Your task to perform on an android device: toggle sleep mode Image 0: 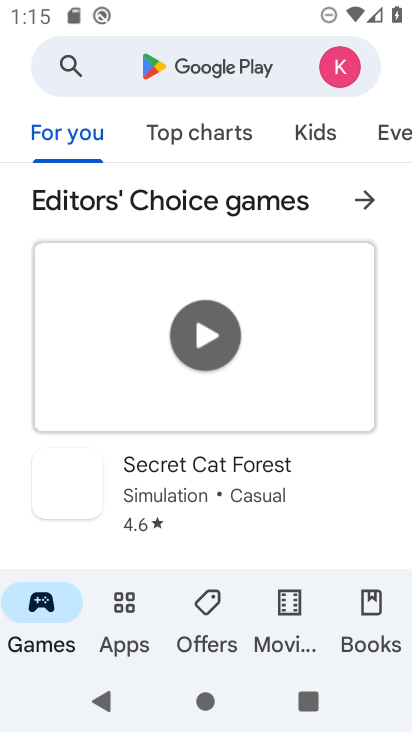
Step 0: press home button
Your task to perform on an android device: toggle sleep mode Image 1: 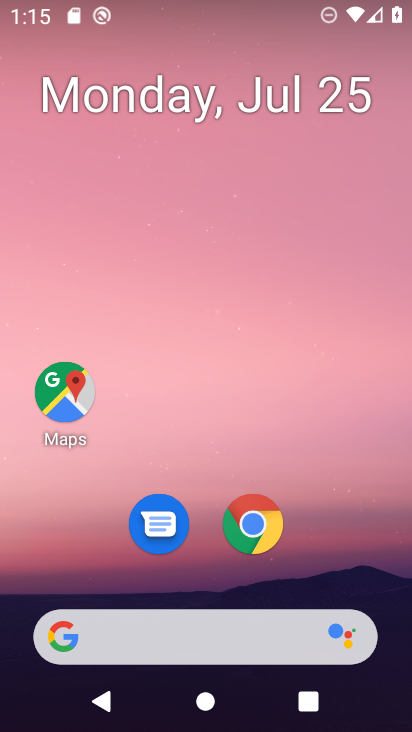
Step 1: drag from (173, 648) to (336, 50)
Your task to perform on an android device: toggle sleep mode Image 2: 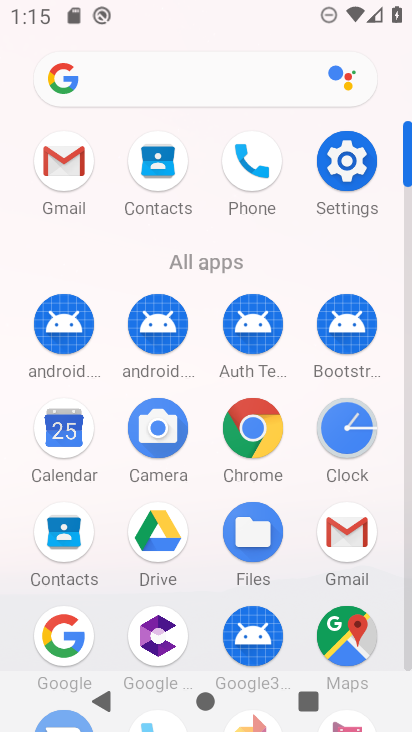
Step 2: click (345, 152)
Your task to perform on an android device: toggle sleep mode Image 3: 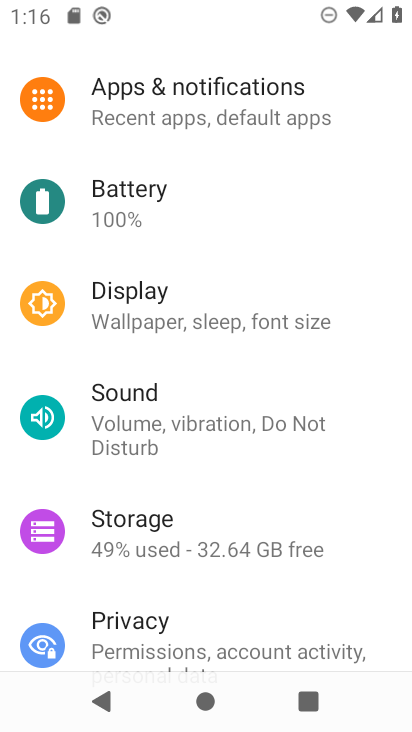
Step 3: click (155, 302)
Your task to perform on an android device: toggle sleep mode Image 4: 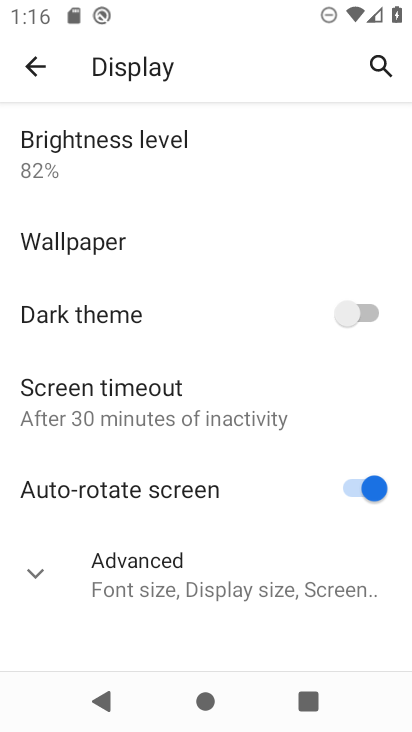
Step 4: task complete